Your task to perform on an android device: Go to notification settings Image 0: 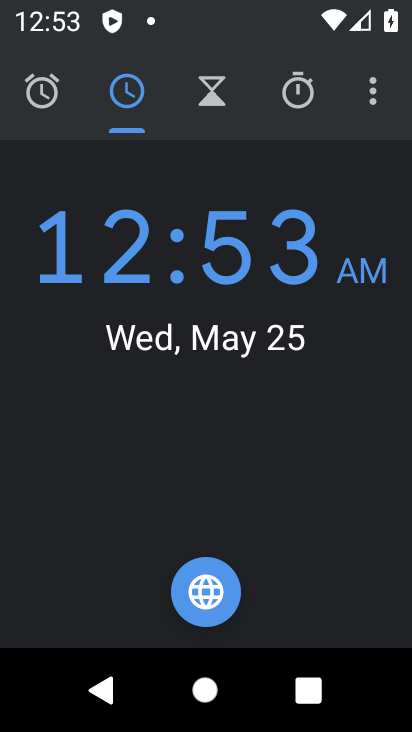
Step 0: press home button
Your task to perform on an android device: Go to notification settings Image 1: 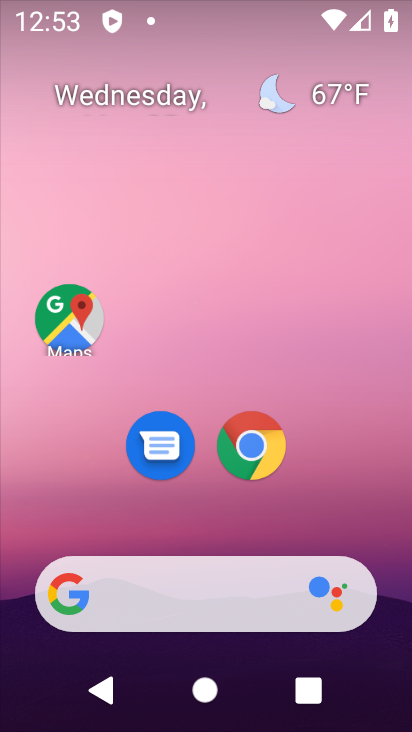
Step 1: drag from (380, 534) to (316, 96)
Your task to perform on an android device: Go to notification settings Image 2: 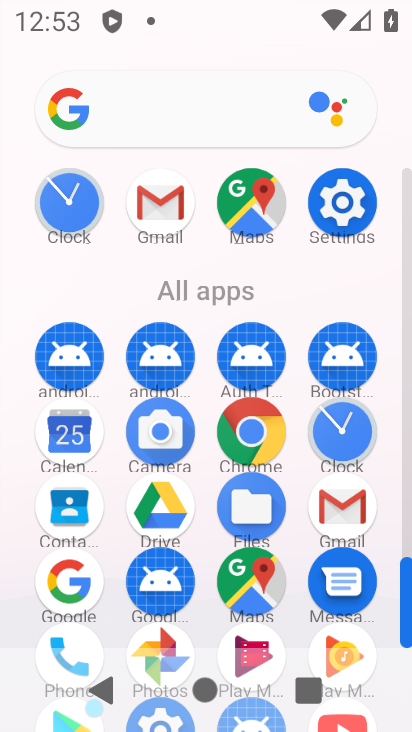
Step 2: click (333, 193)
Your task to perform on an android device: Go to notification settings Image 3: 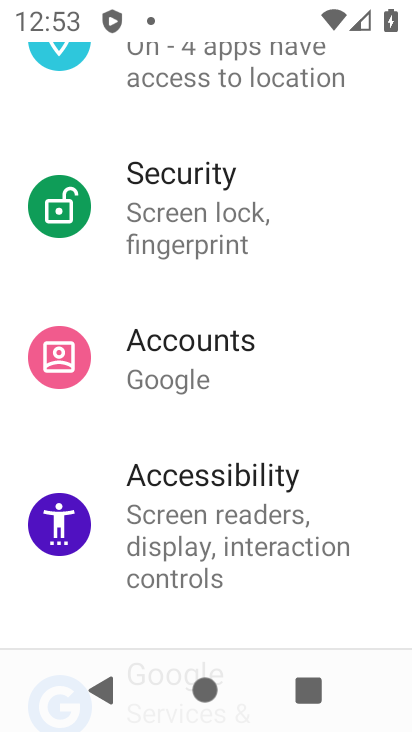
Step 3: drag from (276, 139) to (292, 458)
Your task to perform on an android device: Go to notification settings Image 4: 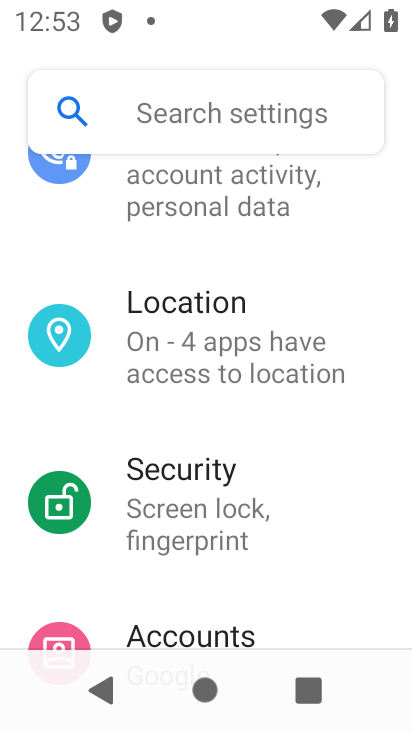
Step 4: drag from (273, 279) to (294, 720)
Your task to perform on an android device: Go to notification settings Image 5: 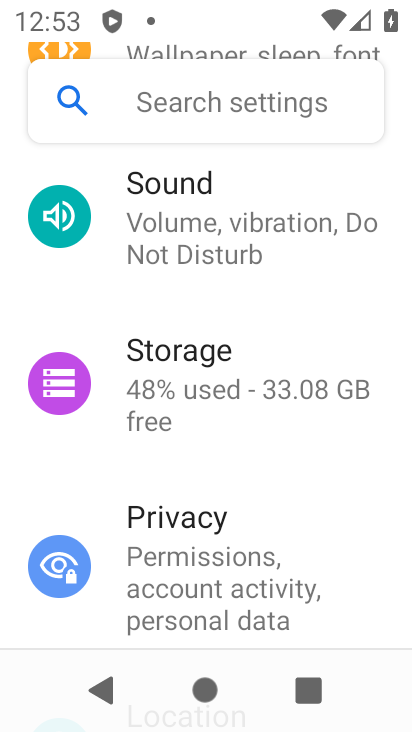
Step 5: drag from (301, 158) to (303, 600)
Your task to perform on an android device: Go to notification settings Image 6: 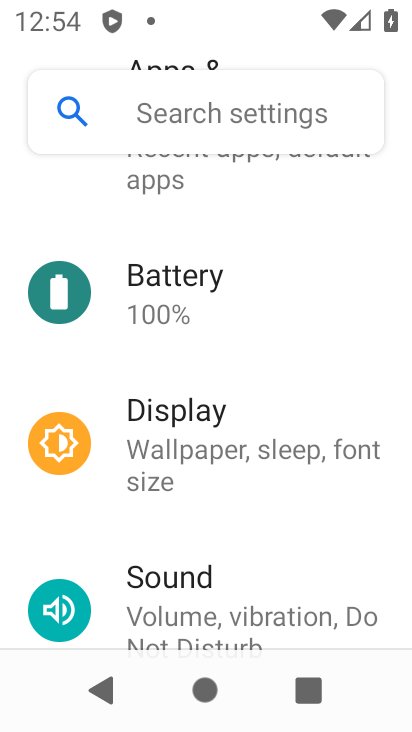
Step 6: drag from (257, 220) to (273, 586)
Your task to perform on an android device: Go to notification settings Image 7: 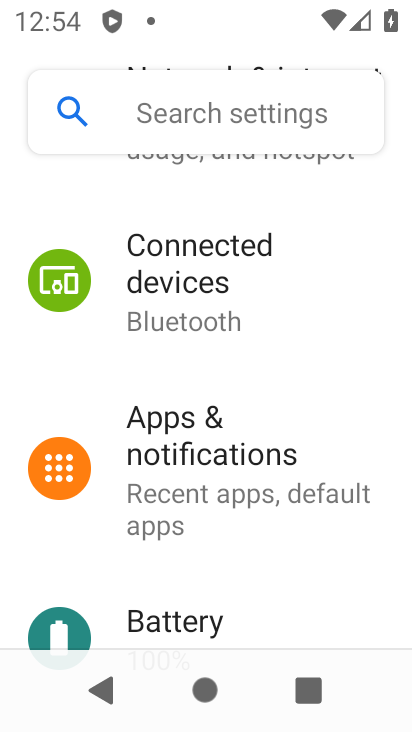
Step 7: click (255, 480)
Your task to perform on an android device: Go to notification settings Image 8: 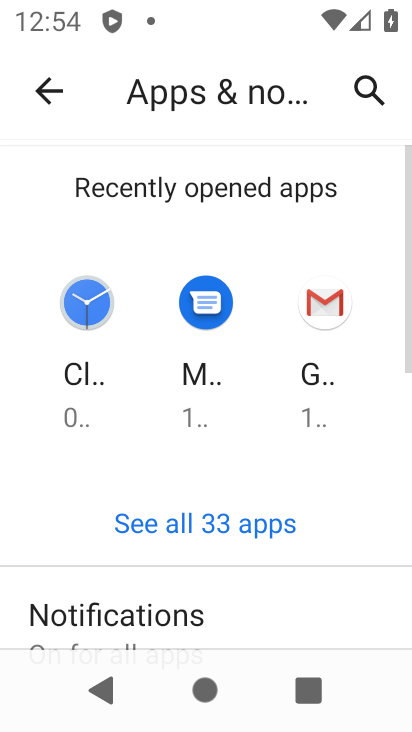
Step 8: drag from (288, 589) to (257, 230)
Your task to perform on an android device: Go to notification settings Image 9: 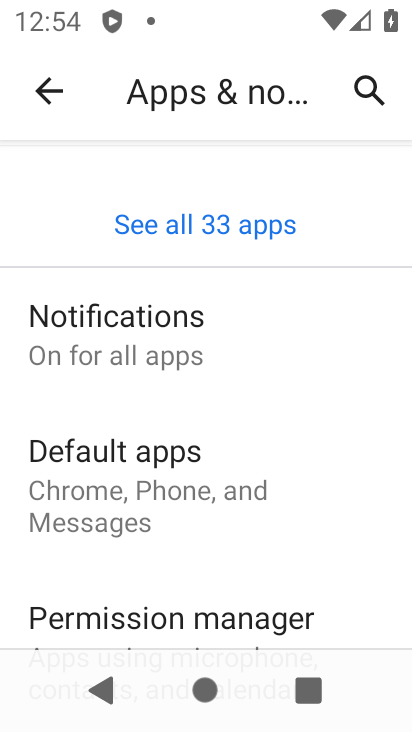
Step 9: click (250, 314)
Your task to perform on an android device: Go to notification settings Image 10: 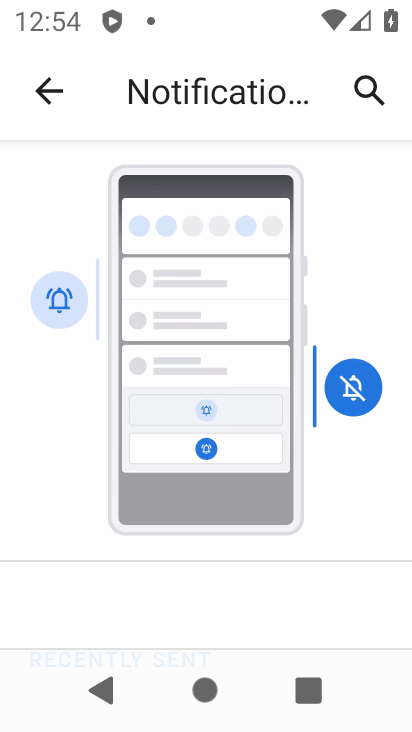
Step 10: task complete